Your task to perform on an android device: snooze an email in the gmail app Image 0: 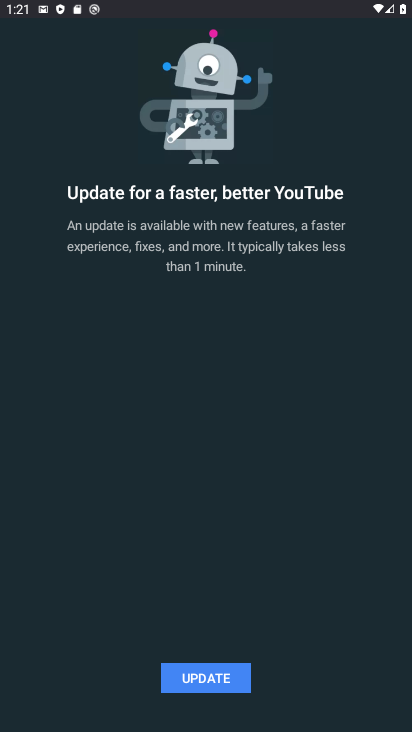
Step 0: press home button
Your task to perform on an android device: snooze an email in the gmail app Image 1: 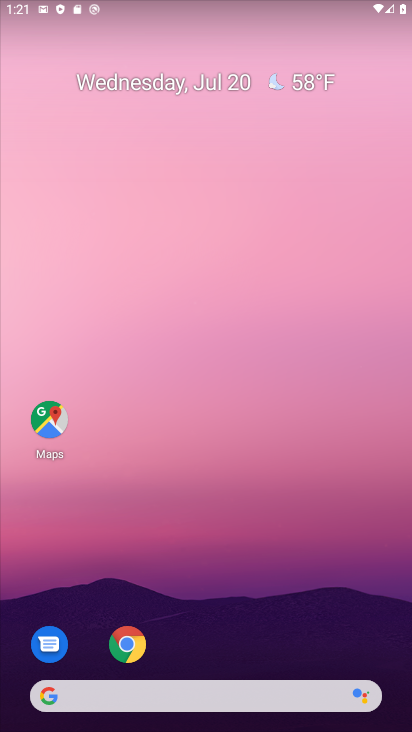
Step 1: drag from (211, 564) to (210, 37)
Your task to perform on an android device: snooze an email in the gmail app Image 2: 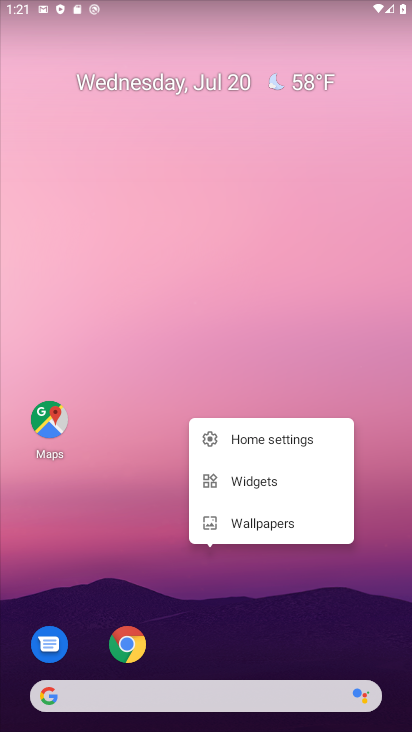
Step 2: click (210, 628)
Your task to perform on an android device: snooze an email in the gmail app Image 3: 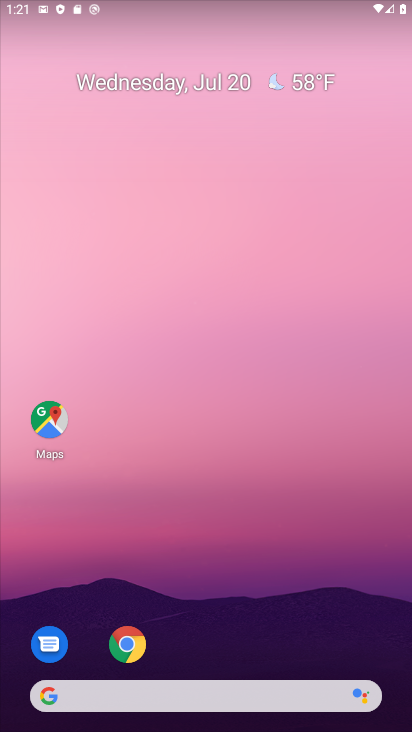
Step 3: drag from (195, 642) to (240, 73)
Your task to perform on an android device: snooze an email in the gmail app Image 4: 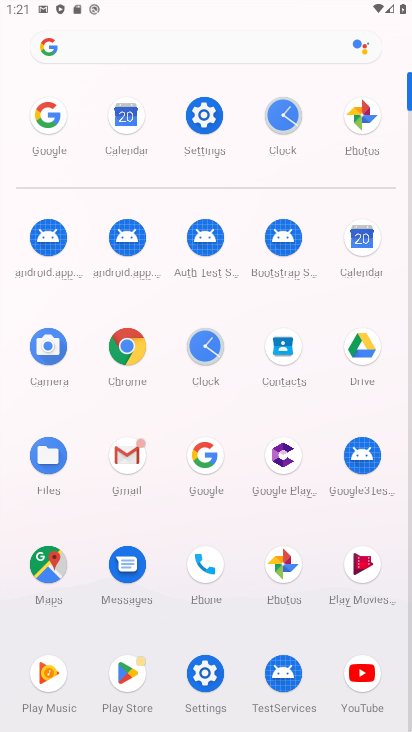
Step 4: click (127, 450)
Your task to perform on an android device: snooze an email in the gmail app Image 5: 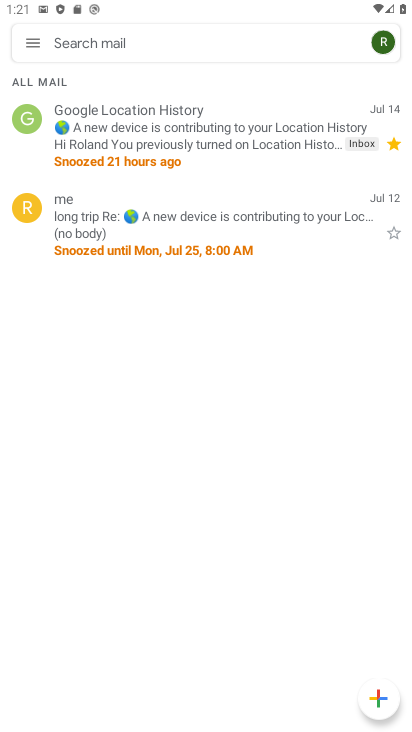
Step 5: click (31, 38)
Your task to perform on an android device: snooze an email in the gmail app Image 6: 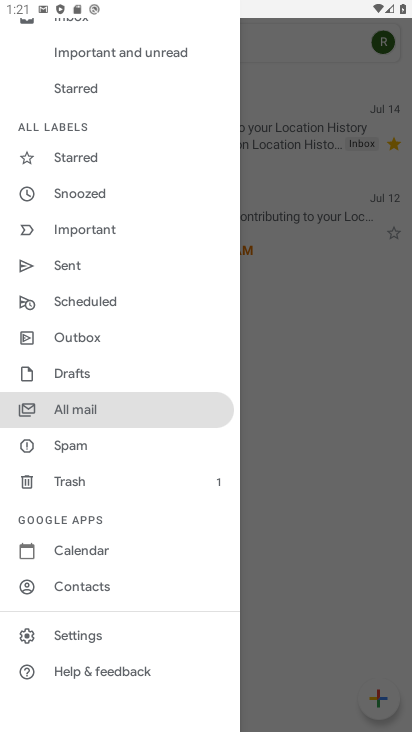
Step 6: click (300, 312)
Your task to perform on an android device: snooze an email in the gmail app Image 7: 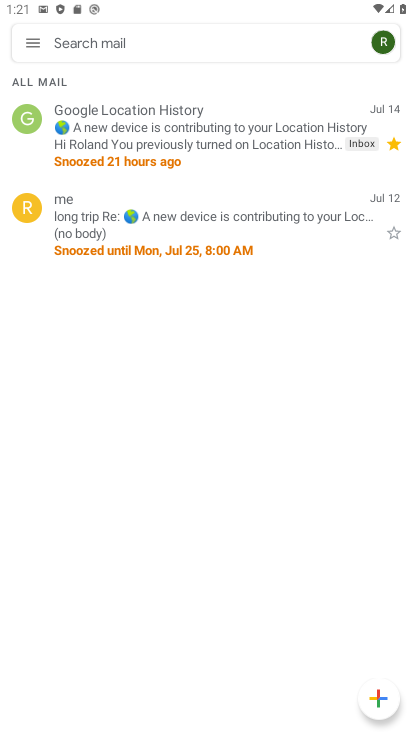
Step 7: task complete